Your task to perform on an android device: Open Wikipedia Image 0: 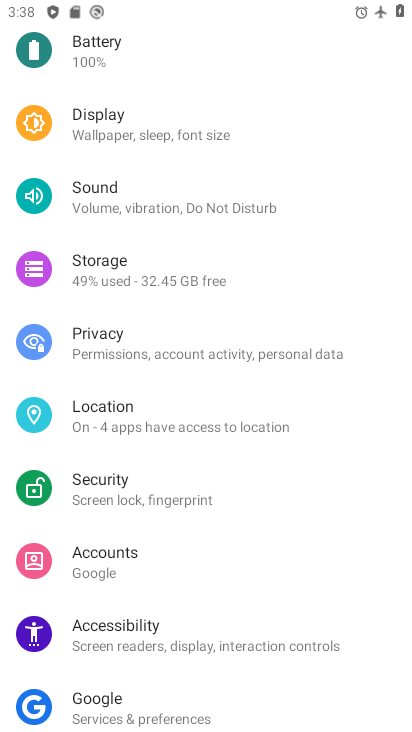
Step 0: press home button
Your task to perform on an android device: Open Wikipedia Image 1: 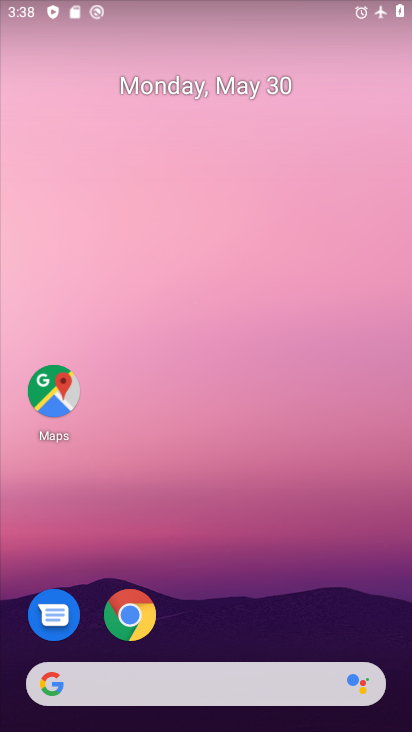
Step 1: click (127, 617)
Your task to perform on an android device: Open Wikipedia Image 2: 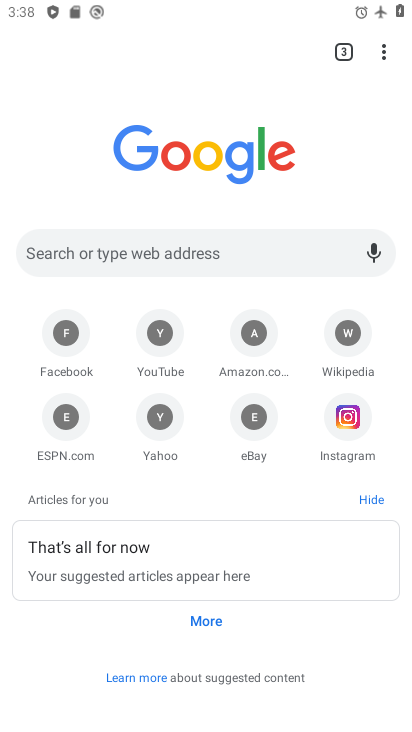
Step 2: click (346, 327)
Your task to perform on an android device: Open Wikipedia Image 3: 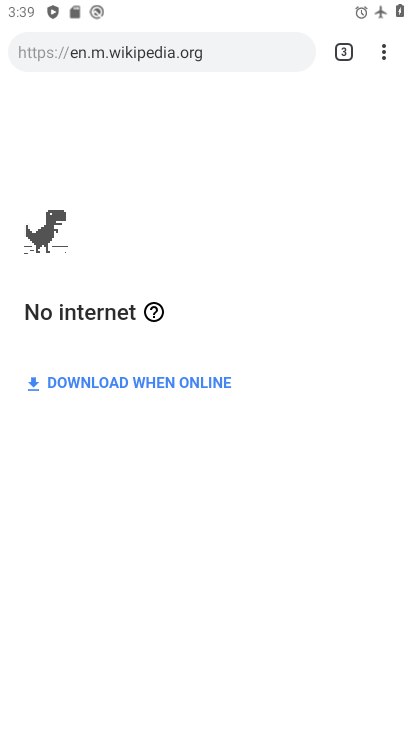
Step 3: task complete